Your task to perform on an android device: Go to settings Image 0: 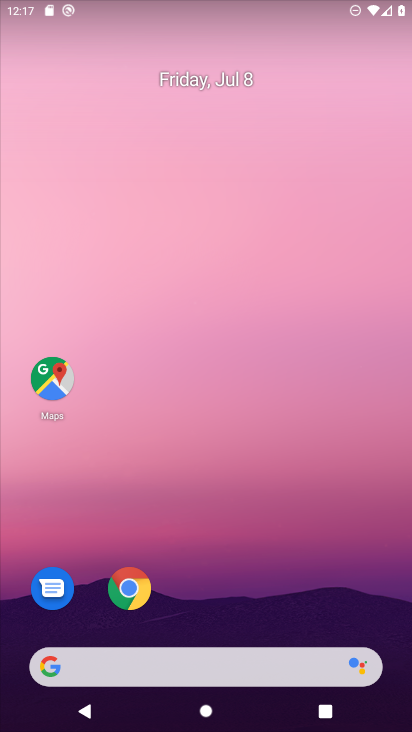
Step 0: press home button
Your task to perform on an android device: Go to settings Image 1: 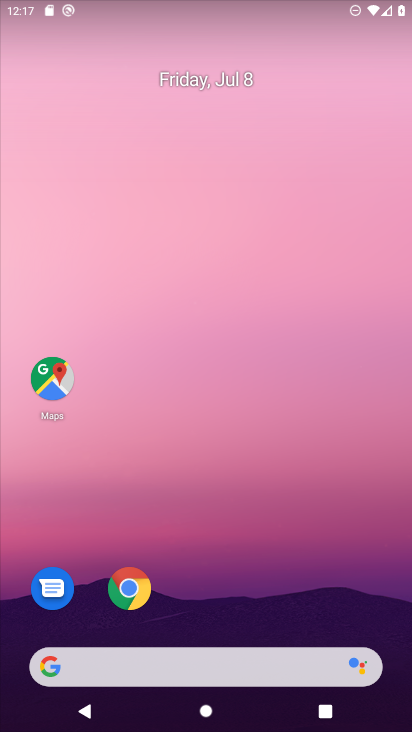
Step 1: drag from (249, 549) to (219, 79)
Your task to perform on an android device: Go to settings Image 2: 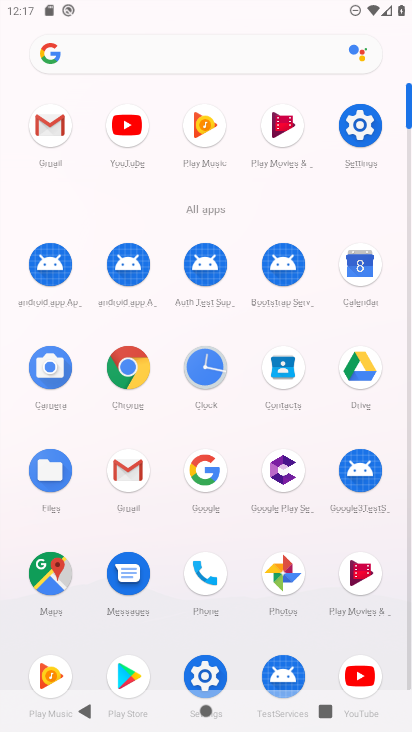
Step 2: click (353, 132)
Your task to perform on an android device: Go to settings Image 3: 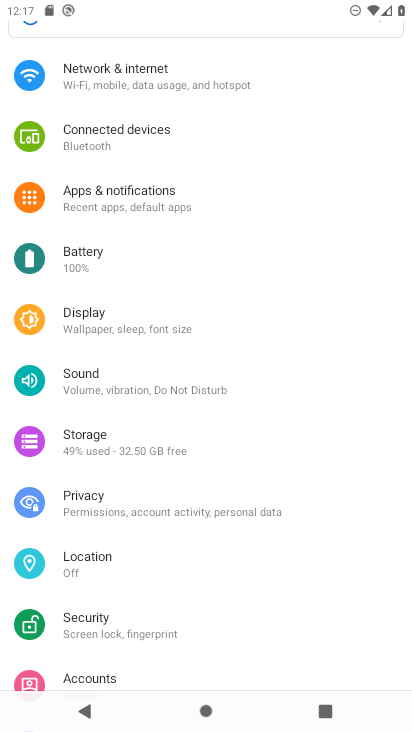
Step 3: task complete